Your task to perform on an android device: turn pop-ups off in chrome Image 0: 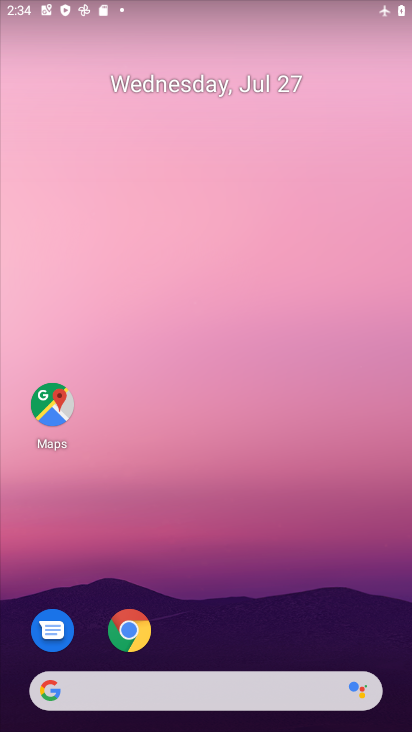
Step 0: click (132, 628)
Your task to perform on an android device: turn pop-ups off in chrome Image 1: 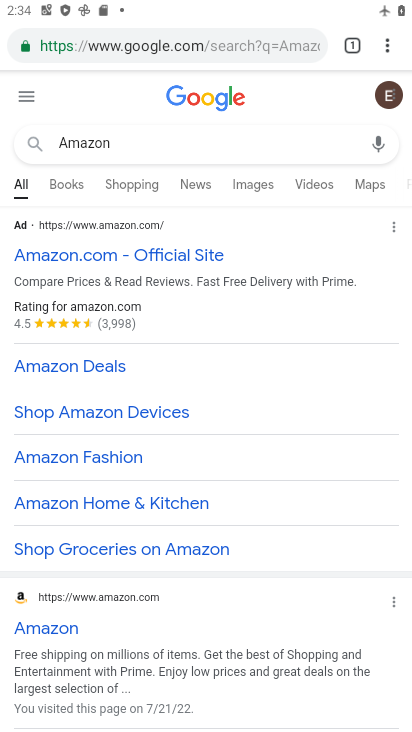
Step 1: click (386, 46)
Your task to perform on an android device: turn pop-ups off in chrome Image 2: 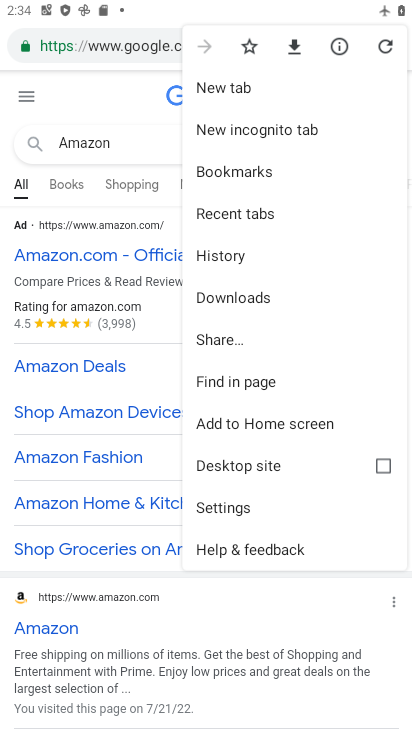
Step 2: click (235, 502)
Your task to perform on an android device: turn pop-ups off in chrome Image 3: 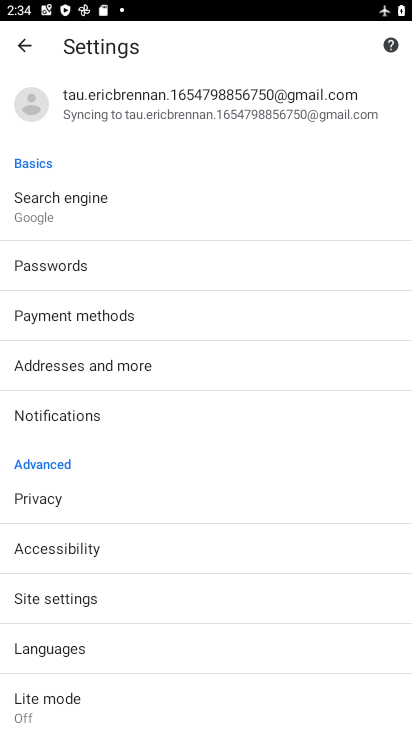
Step 3: click (53, 598)
Your task to perform on an android device: turn pop-ups off in chrome Image 4: 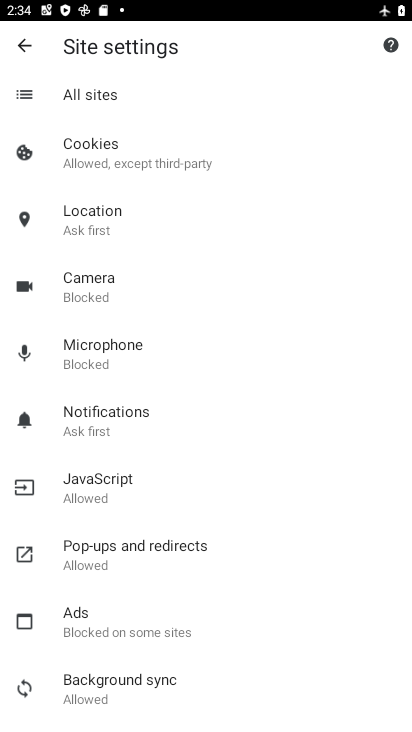
Step 4: click (110, 547)
Your task to perform on an android device: turn pop-ups off in chrome Image 5: 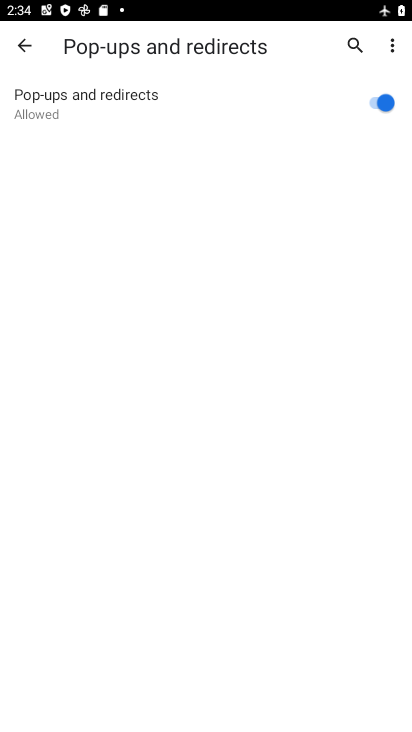
Step 5: click (377, 105)
Your task to perform on an android device: turn pop-ups off in chrome Image 6: 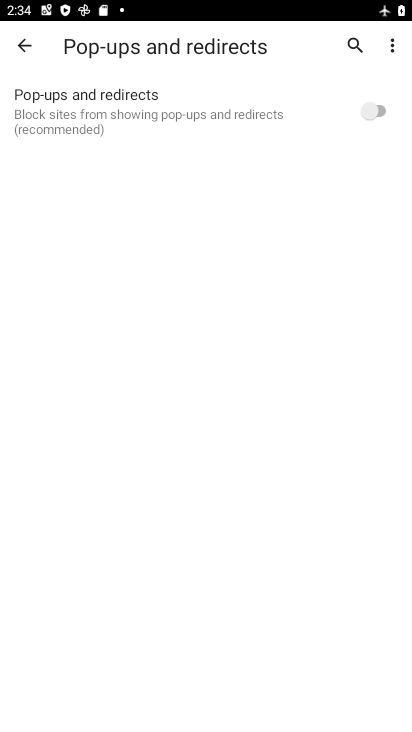
Step 6: task complete